Your task to perform on an android device: see sites visited before in the chrome app Image 0: 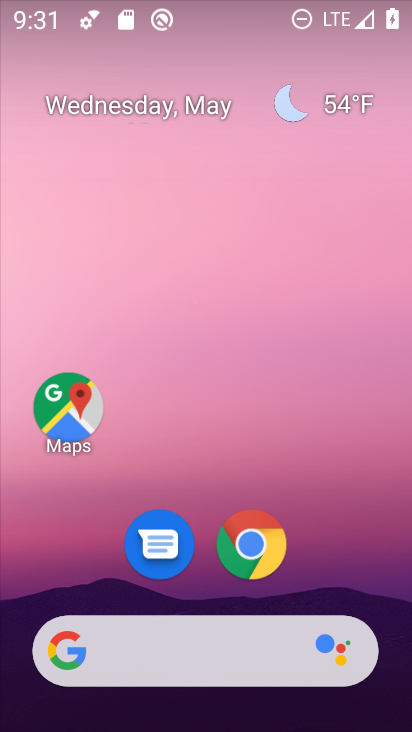
Step 0: click (255, 548)
Your task to perform on an android device: see sites visited before in the chrome app Image 1: 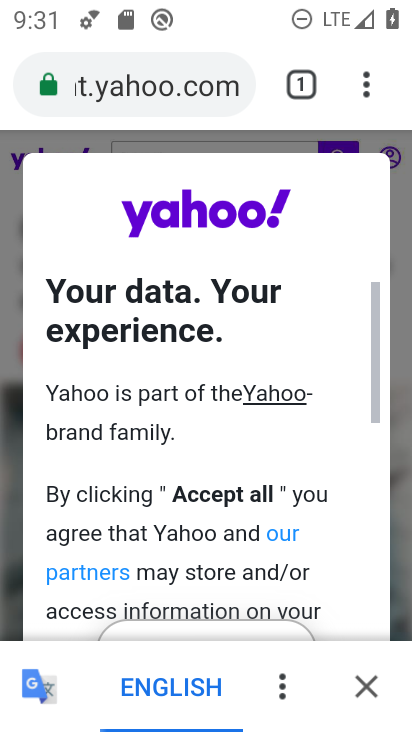
Step 1: click (346, 91)
Your task to perform on an android device: see sites visited before in the chrome app Image 2: 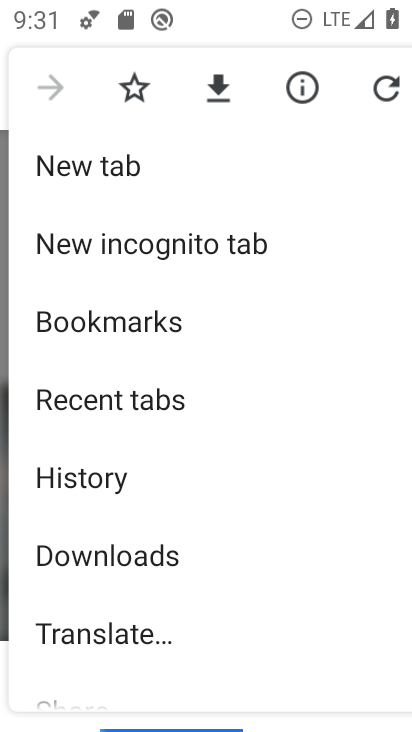
Step 2: click (156, 499)
Your task to perform on an android device: see sites visited before in the chrome app Image 3: 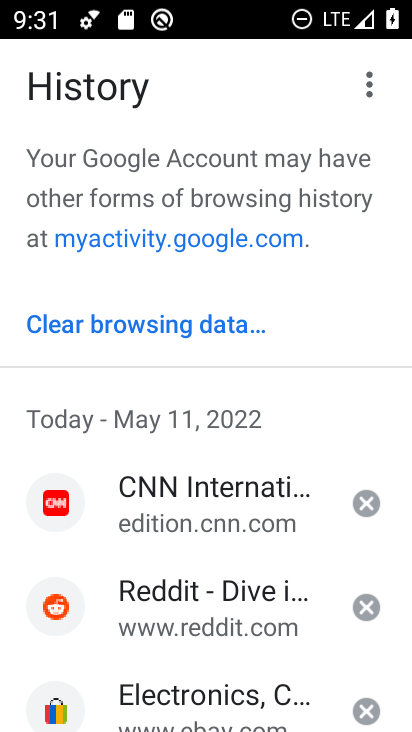
Step 3: task complete